Your task to perform on an android device: Search for vegetarian restaurants on Maps Image 0: 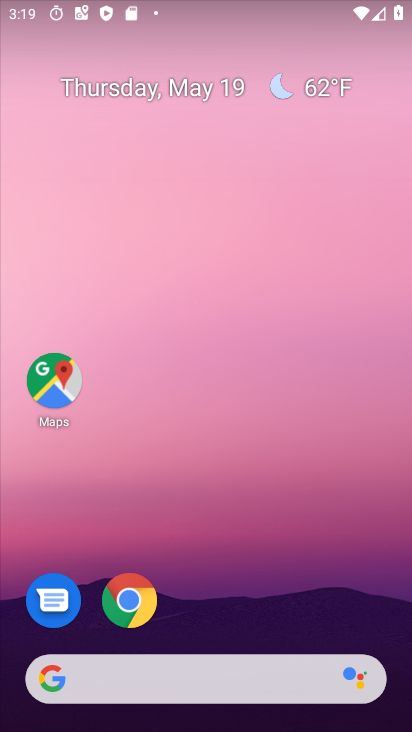
Step 0: click (410, 427)
Your task to perform on an android device: Search for vegetarian restaurants on Maps Image 1: 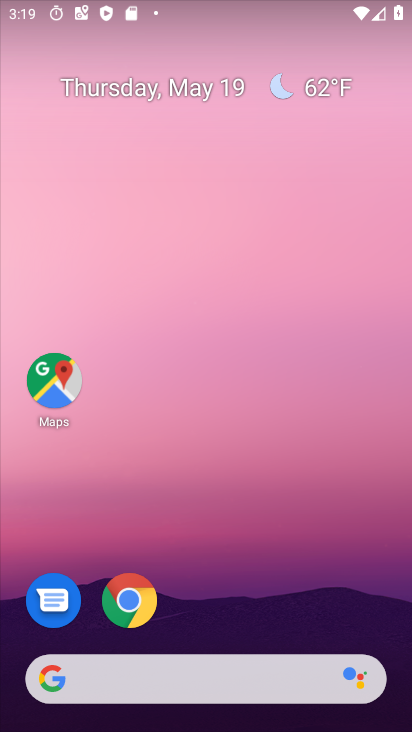
Step 1: press home button
Your task to perform on an android device: Search for vegetarian restaurants on Maps Image 2: 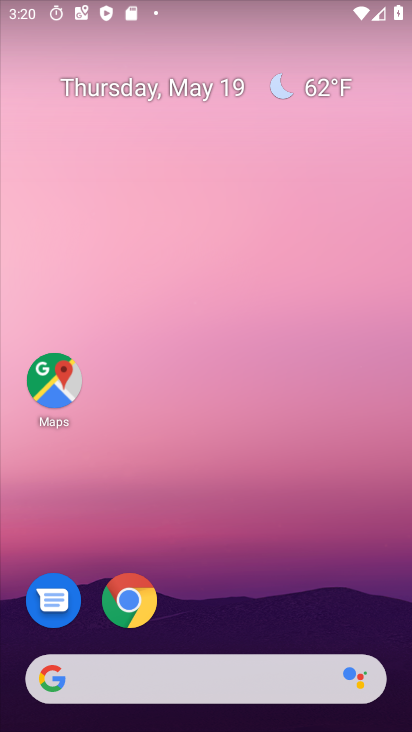
Step 2: click (62, 374)
Your task to perform on an android device: Search for vegetarian restaurants on Maps Image 3: 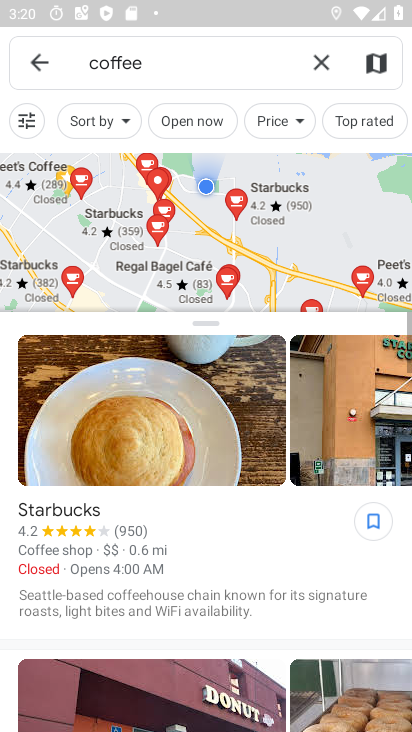
Step 3: click (315, 53)
Your task to perform on an android device: Search for vegetarian restaurants on Maps Image 4: 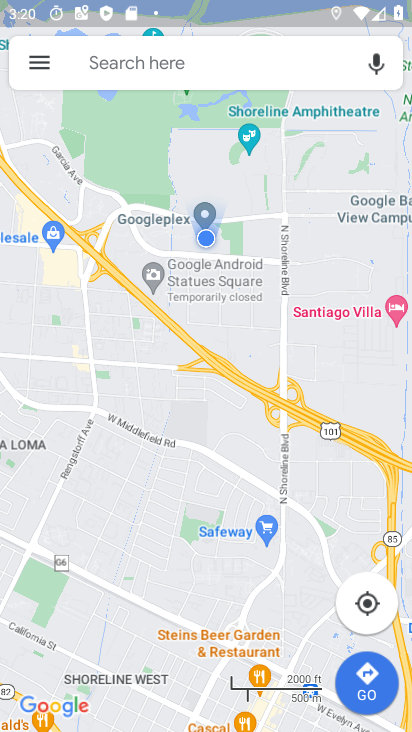
Step 4: click (156, 53)
Your task to perform on an android device: Search for vegetarian restaurants on Maps Image 5: 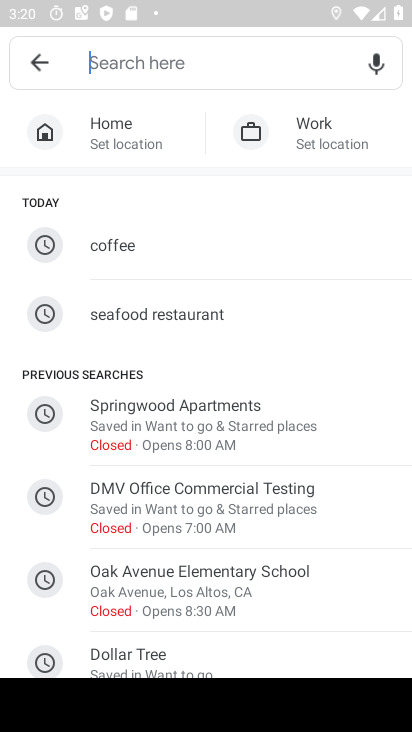
Step 5: click (154, 56)
Your task to perform on an android device: Search for vegetarian restaurants on Maps Image 6: 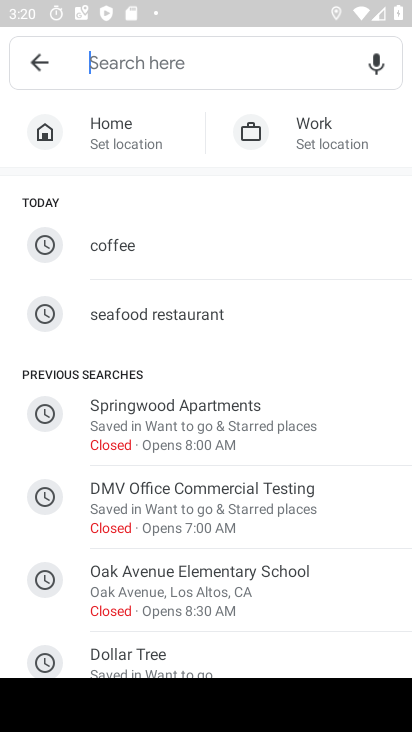
Step 6: drag from (18, 288) to (131, 169)
Your task to perform on an android device: Search for vegetarian restaurants on Maps Image 7: 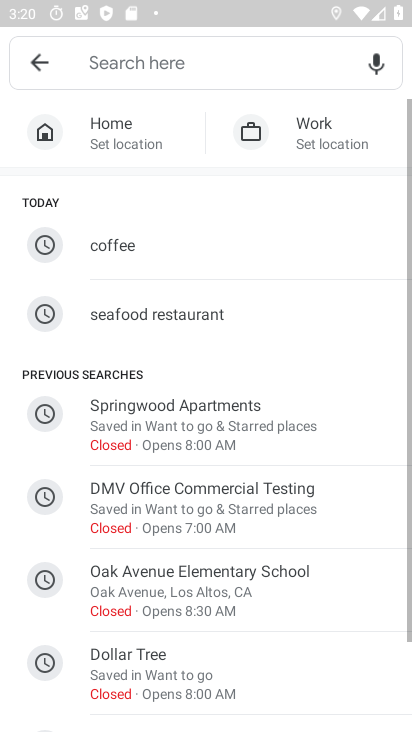
Step 7: drag from (11, 638) to (226, 292)
Your task to perform on an android device: Search for vegetarian restaurants on Maps Image 8: 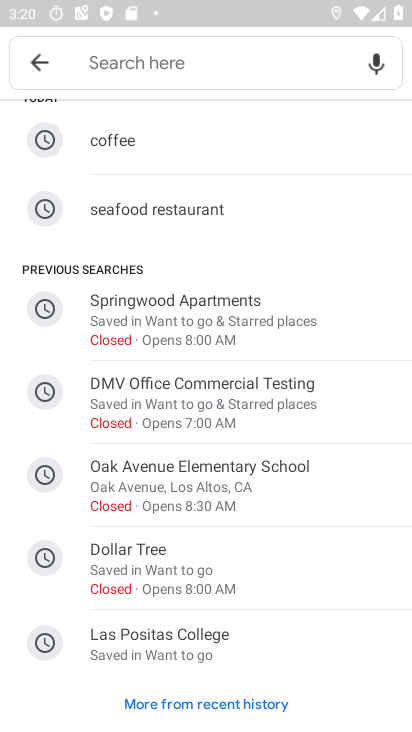
Step 8: drag from (18, 647) to (266, 279)
Your task to perform on an android device: Search for vegetarian restaurants on Maps Image 9: 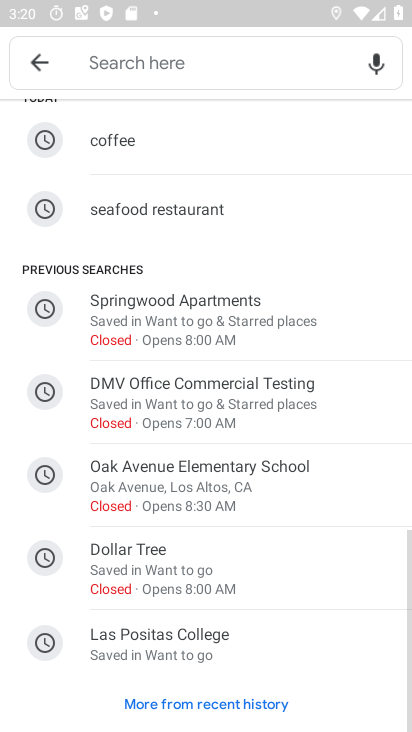
Step 9: drag from (299, 228) to (360, 571)
Your task to perform on an android device: Search for vegetarian restaurants on Maps Image 10: 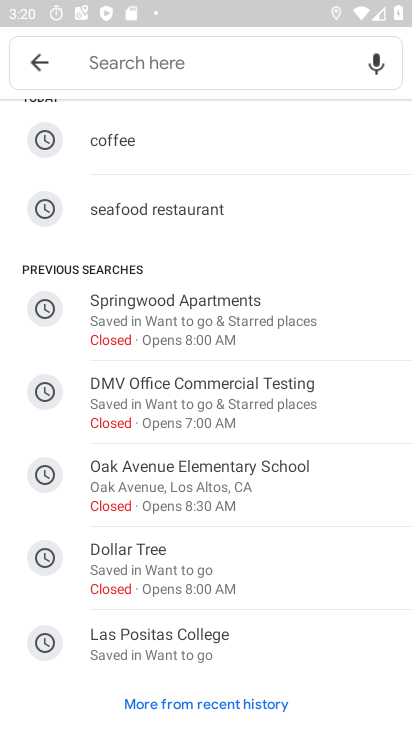
Step 10: click (163, 51)
Your task to perform on an android device: Search for vegetarian restaurants on Maps Image 11: 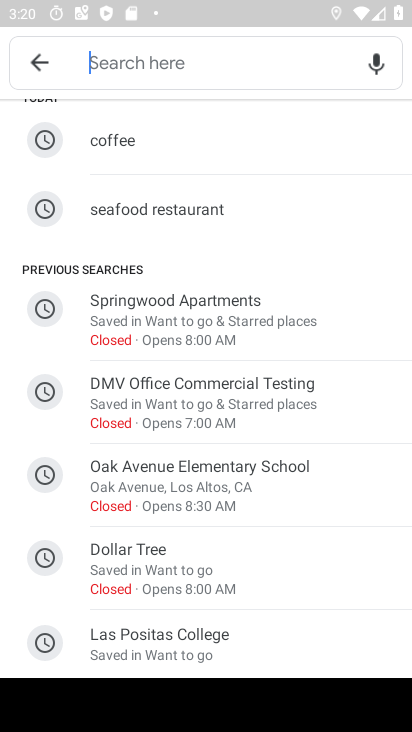
Step 11: type "vegetarian restaurants"
Your task to perform on an android device: Search for vegetarian restaurants on Maps Image 12: 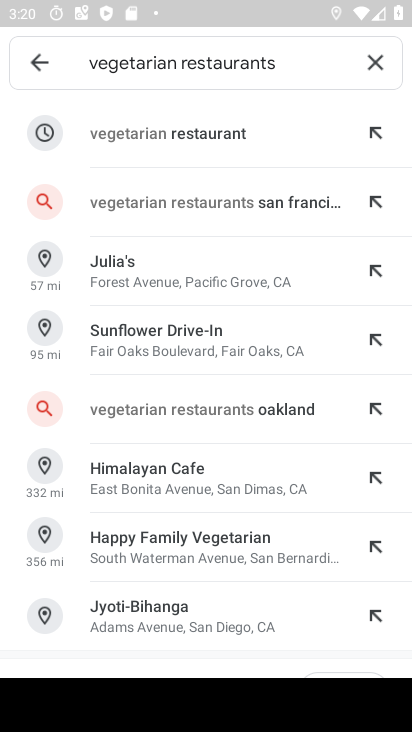
Step 12: click (141, 142)
Your task to perform on an android device: Search for vegetarian restaurants on Maps Image 13: 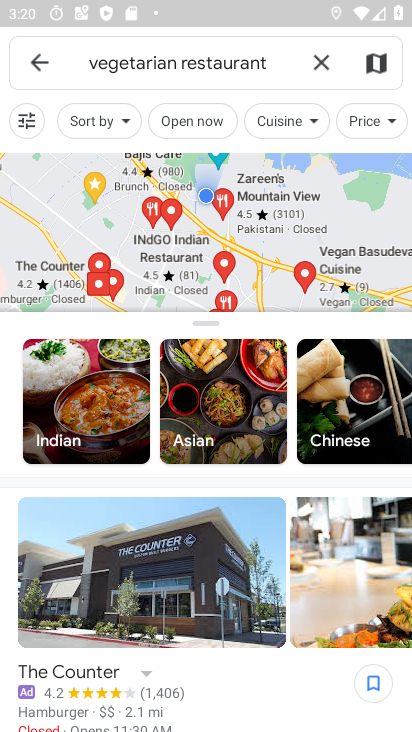
Step 13: task complete